Your task to perform on an android device: find photos in the google photos app Image 0: 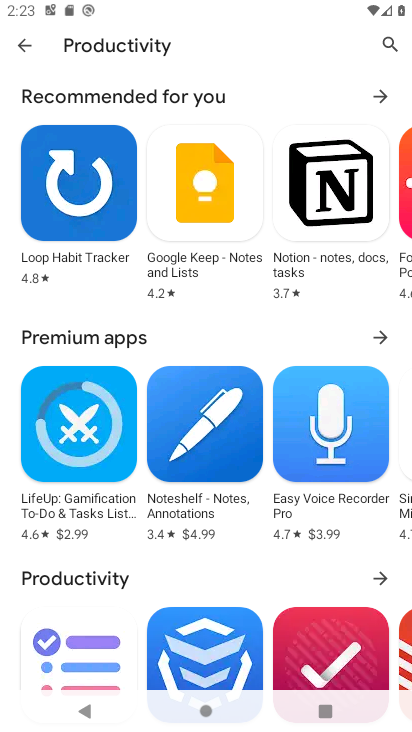
Step 0: press home button
Your task to perform on an android device: find photos in the google photos app Image 1: 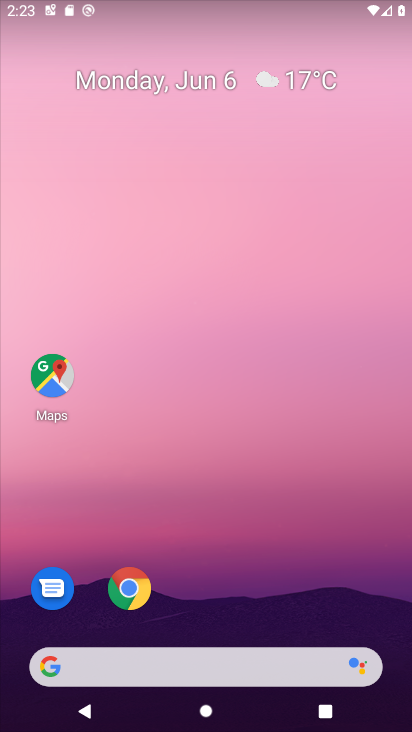
Step 1: drag from (116, 705) to (407, 269)
Your task to perform on an android device: find photos in the google photos app Image 2: 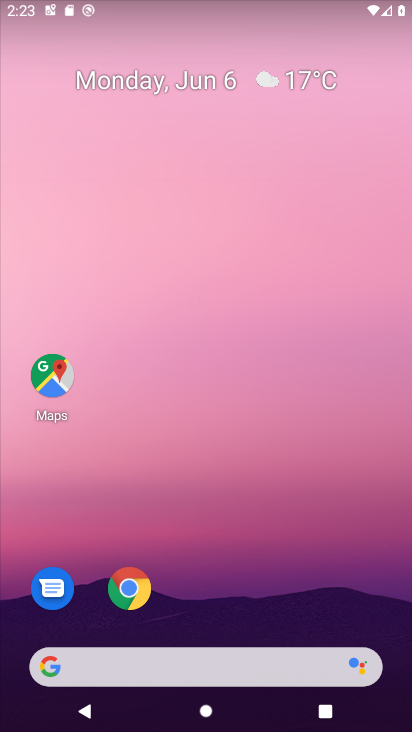
Step 2: drag from (238, 708) to (344, 37)
Your task to perform on an android device: find photos in the google photos app Image 3: 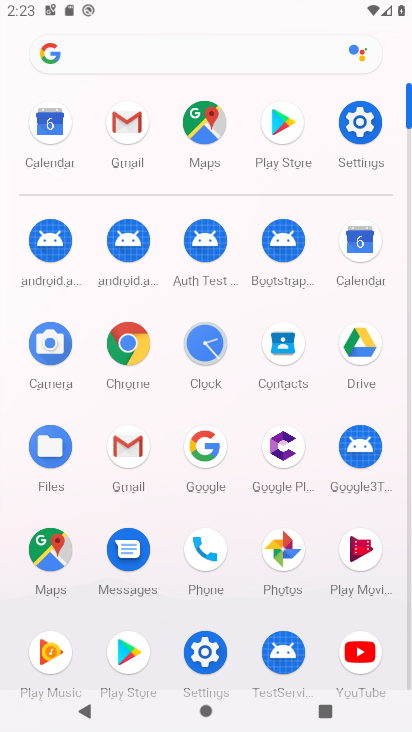
Step 3: click (282, 557)
Your task to perform on an android device: find photos in the google photos app Image 4: 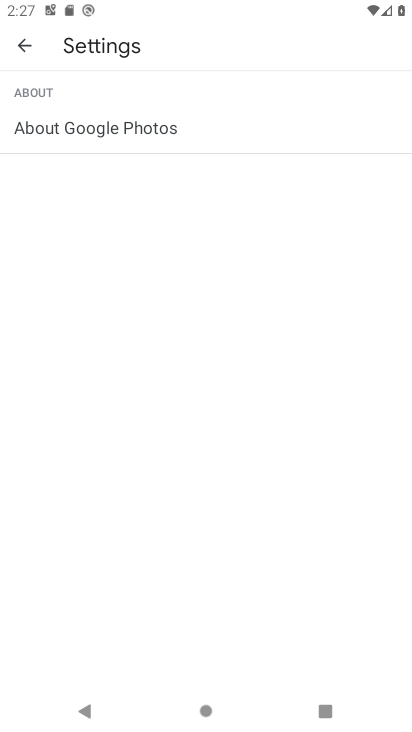
Step 4: press home button
Your task to perform on an android device: find photos in the google photos app Image 5: 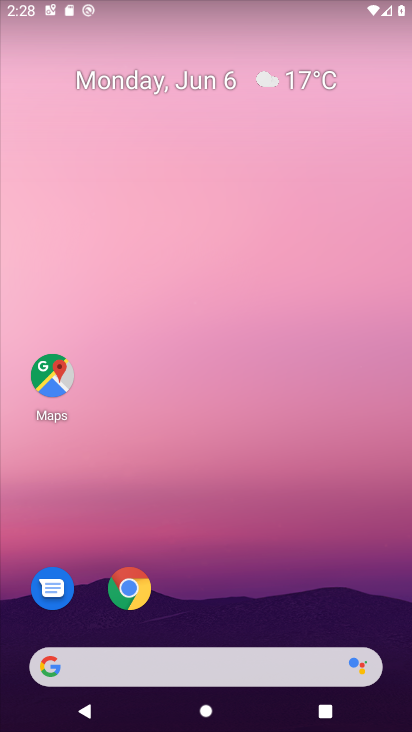
Step 5: drag from (266, 718) to (173, 19)
Your task to perform on an android device: find photos in the google photos app Image 6: 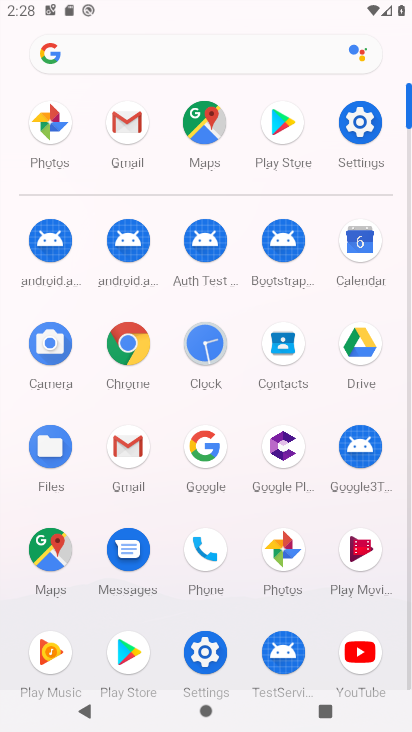
Step 6: click (284, 548)
Your task to perform on an android device: find photos in the google photos app Image 7: 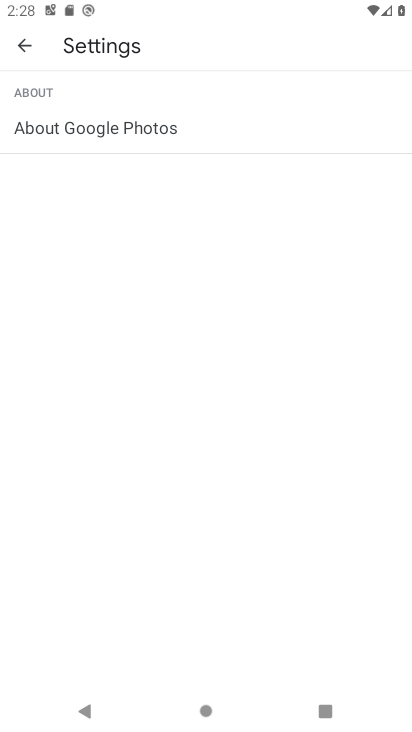
Step 7: click (19, 40)
Your task to perform on an android device: find photos in the google photos app Image 8: 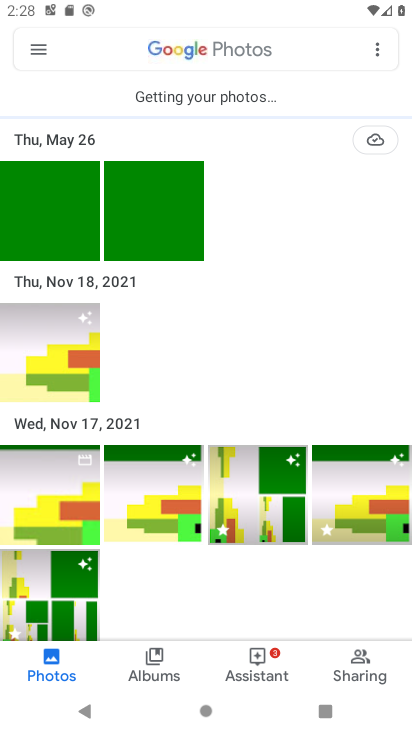
Step 8: task complete